Your task to perform on an android device: delete location history Image 0: 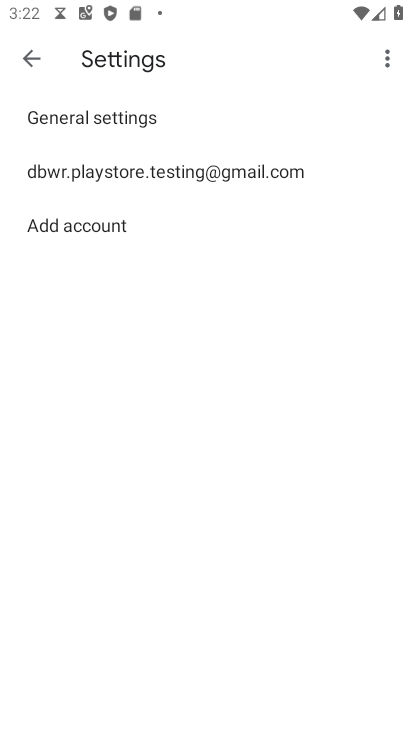
Step 0: press home button
Your task to perform on an android device: delete location history Image 1: 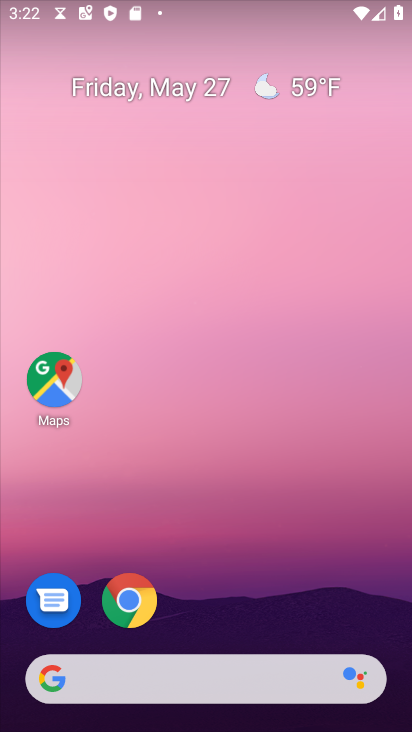
Step 1: drag from (233, 546) to (201, 137)
Your task to perform on an android device: delete location history Image 2: 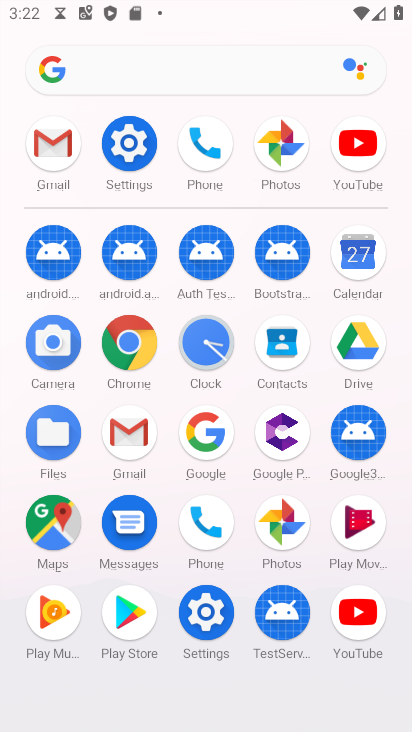
Step 2: click (56, 522)
Your task to perform on an android device: delete location history Image 3: 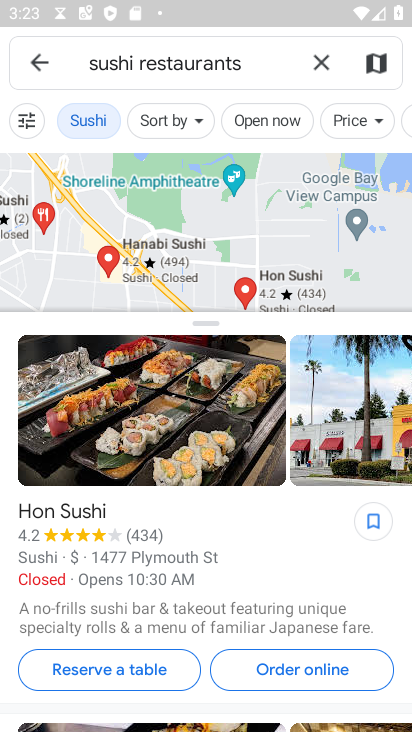
Step 3: click (321, 61)
Your task to perform on an android device: delete location history Image 4: 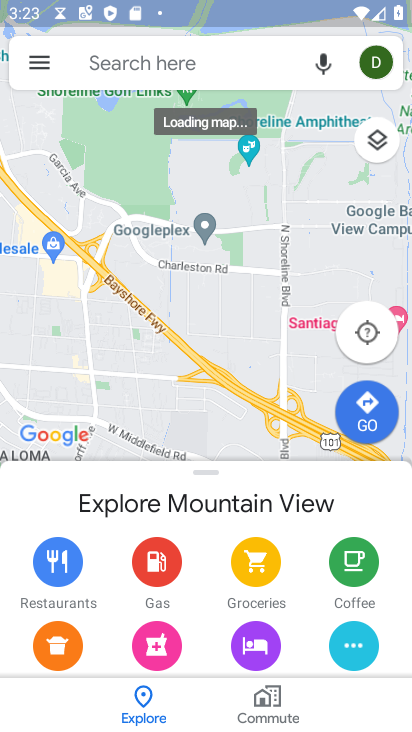
Step 4: click (42, 61)
Your task to perform on an android device: delete location history Image 5: 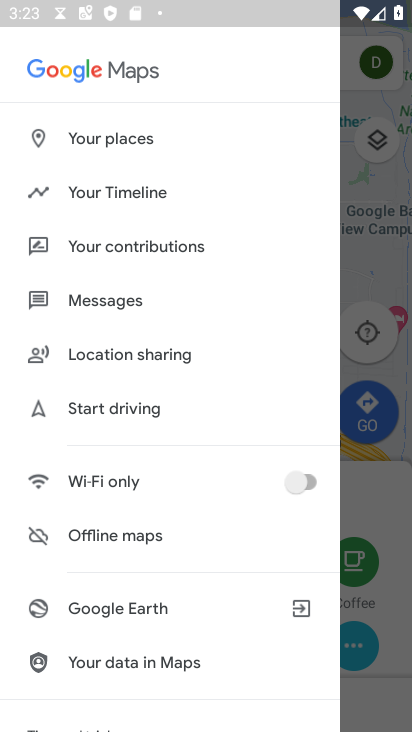
Step 5: drag from (119, 513) to (133, 345)
Your task to perform on an android device: delete location history Image 6: 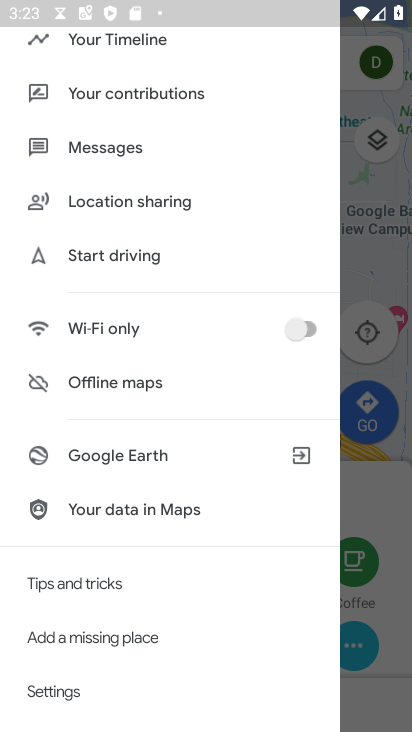
Step 6: drag from (90, 540) to (114, 314)
Your task to perform on an android device: delete location history Image 7: 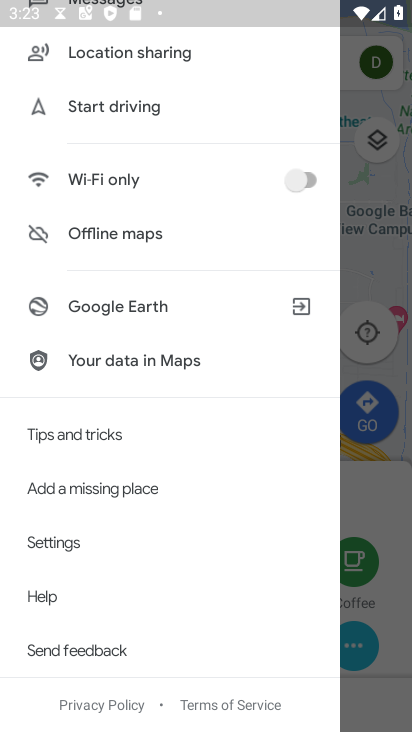
Step 7: click (79, 542)
Your task to perform on an android device: delete location history Image 8: 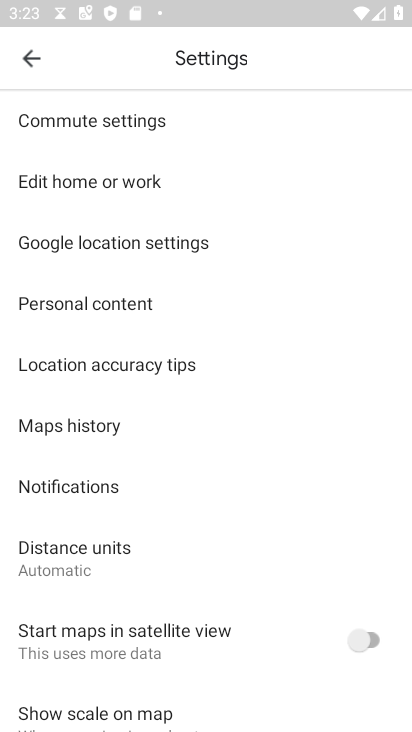
Step 8: click (114, 306)
Your task to perform on an android device: delete location history Image 9: 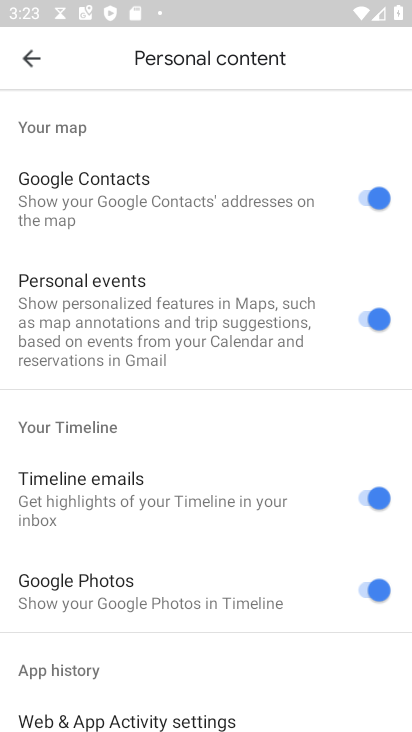
Step 9: drag from (114, 527) to (135, 367)
Your task to perform on an android device: delete location history Image 10: 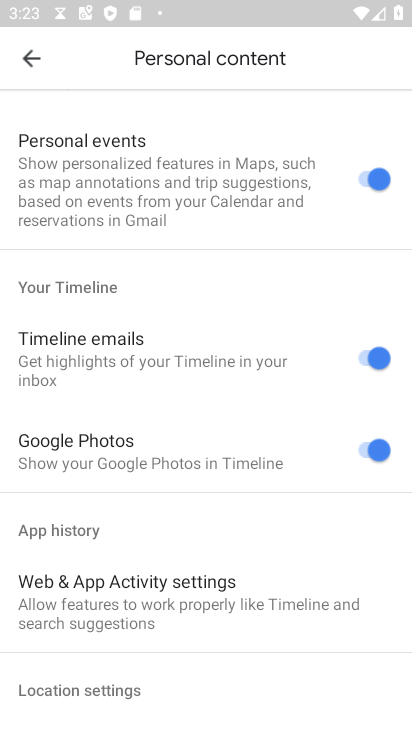
Step 10: drag from (123, 524) to (119, 350)
Your task to perform on an android device: delete location history Image 11: 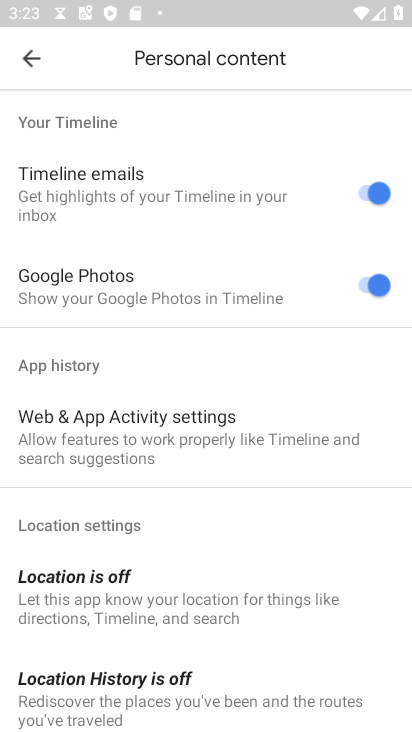
Step 11: drag from (160, 530) to (160, 346)
Your task to perform on an android device: delete location history Image 12: 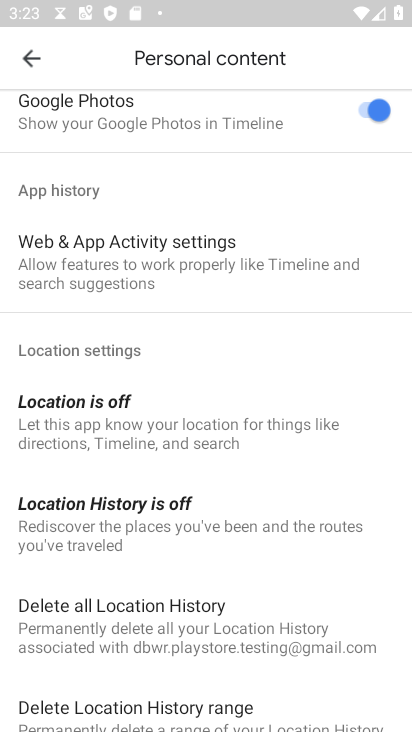
Step 12: drag from (127, 482) to (141, 346)
Your task to perform on an android device: delete location history Image 13: 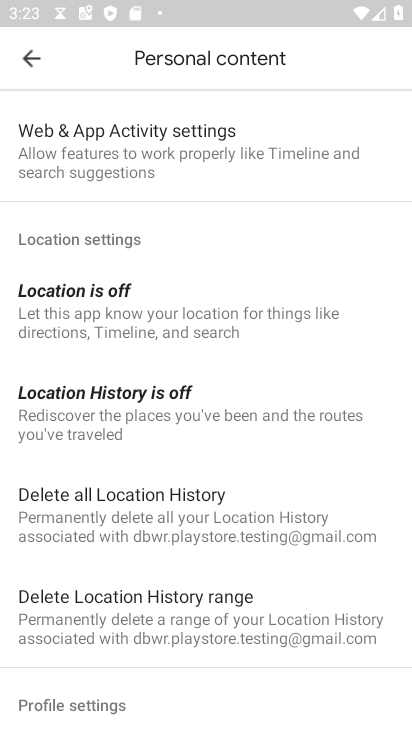
Step 13: click (173, 493)
Your task to perform on an android device: delete location history Image 14: 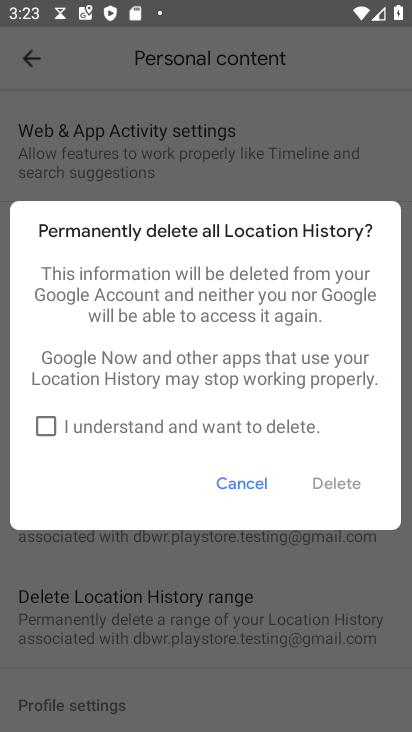
Step 14: click (49, 431)
Your task to perform on an android device: delete location history Image 15: 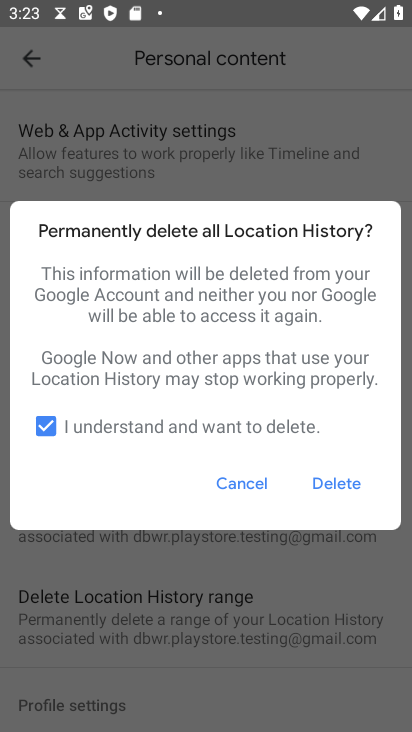
Step 15: click (347, 491)
Your task to perform on an android device: delete location history Image 16: 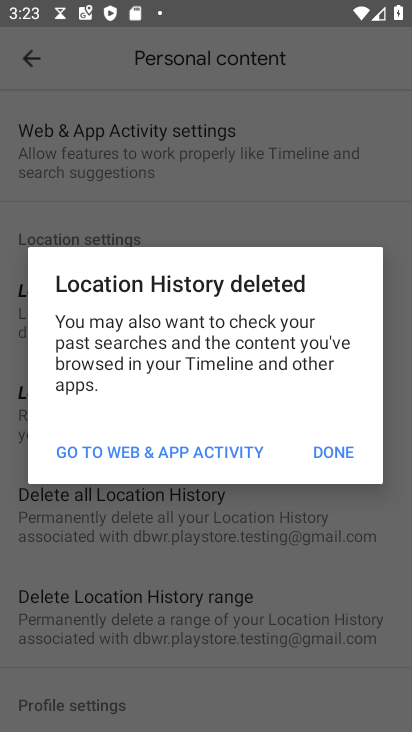
Step 16: click (346, 457)
Your task to perform on an android device: delete location history Image 17: 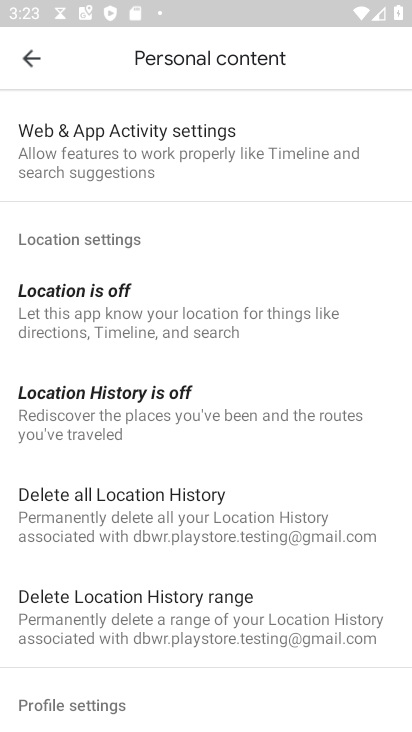
Step 17: task complete